Your task to perform on an android device: create a new album in the google photos Image 0: 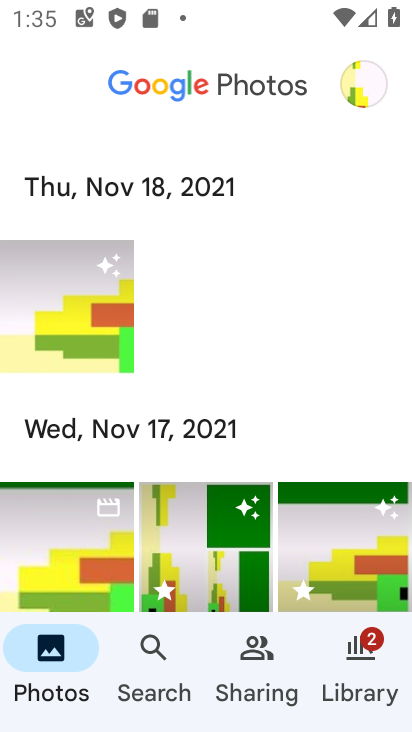
Step 0: click (65, 307)
Your task to perform on an android device: create a new album in the google photos Image 1: 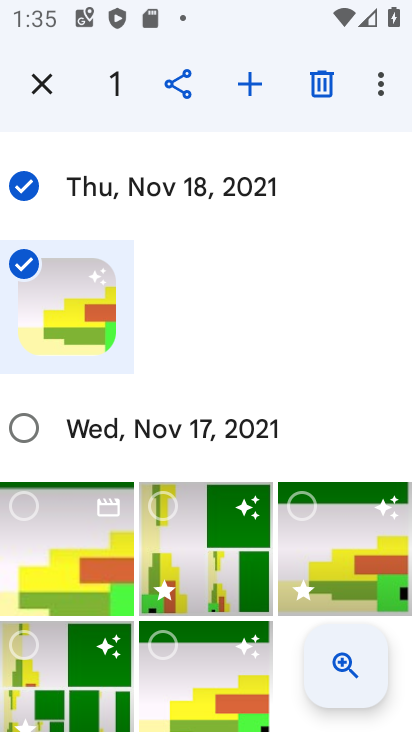
Step 1: click (257, 75)
Your task to perform on an android device: create a new album in the google photos Image 2: 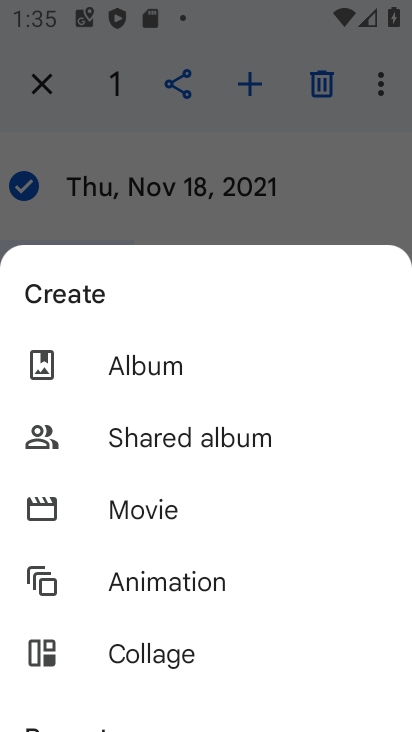
Step 2: click (162, 368)
Your task to perform on an android device: create a new album in the google photos Image 3: 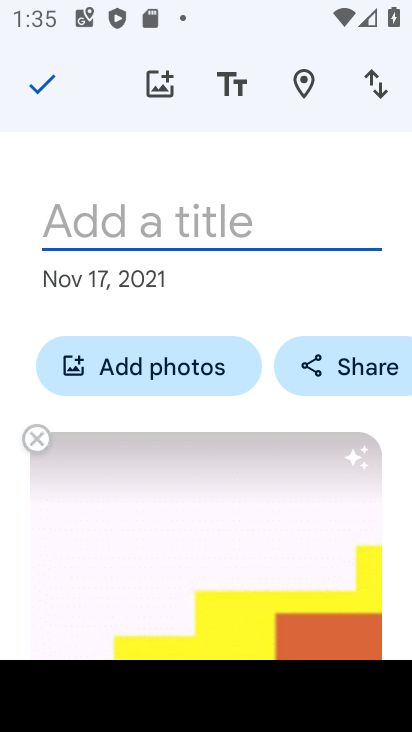
Step 3: type "hgvj m mn"
Your task to perform on an android device: create a new album in the google photos Image 4: 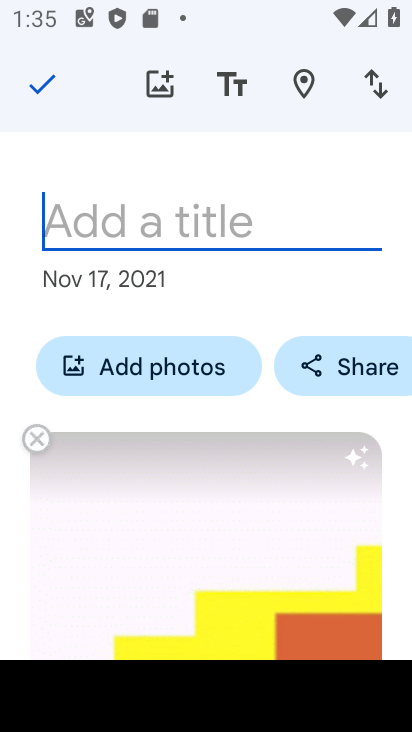
Step 4: click (38, 83)
Your task to perform on an android device: create a new album in the google photos Image 5: 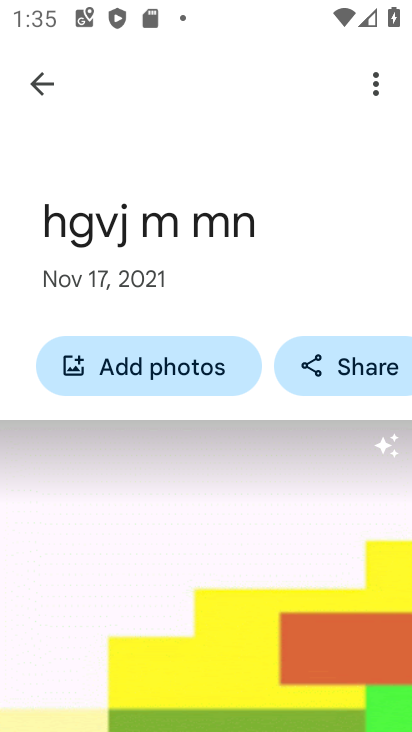
Step 5: task complete